Your task to perform on an android device: change the clock display to show seconds Image 0: 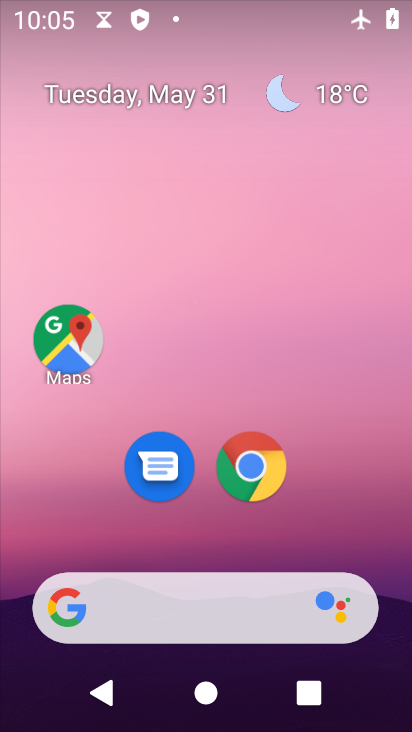
Step 0: drag from (360, 546) to (233, 10)
Your task to perform on an android device: change the clock display to show seconds Image 1: 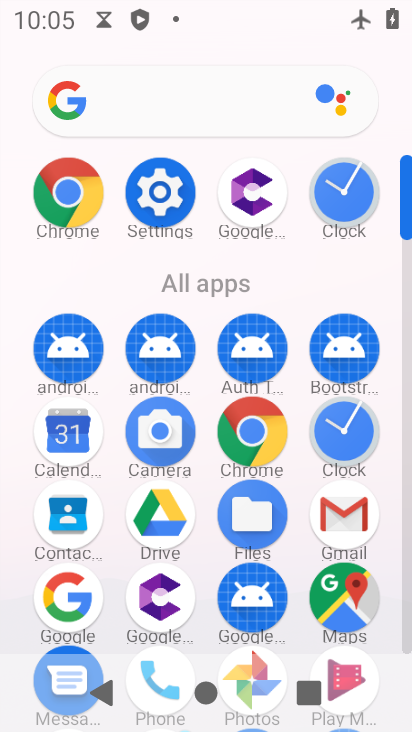
Step 1: drag from (23, 557) to (20, 216)
Your task to perform on an android device: change the clock display to show seconds Image 2: 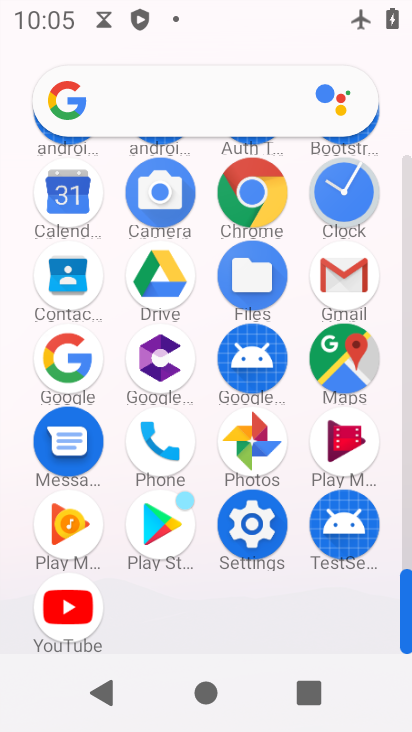
Step 2: click (342, 189)
Your task to perform on an android device: change the clock display to show seconds Image 3: 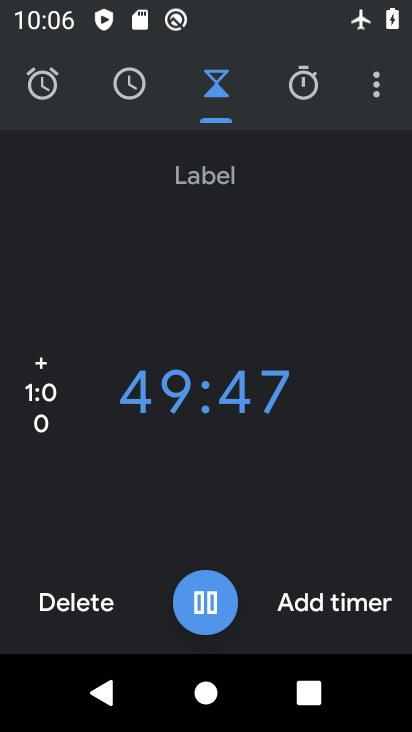
Step 3: drag from (366, 91) to (300, 158)
Your task to perform on an android device: change the clock display to show seconds Image 4: 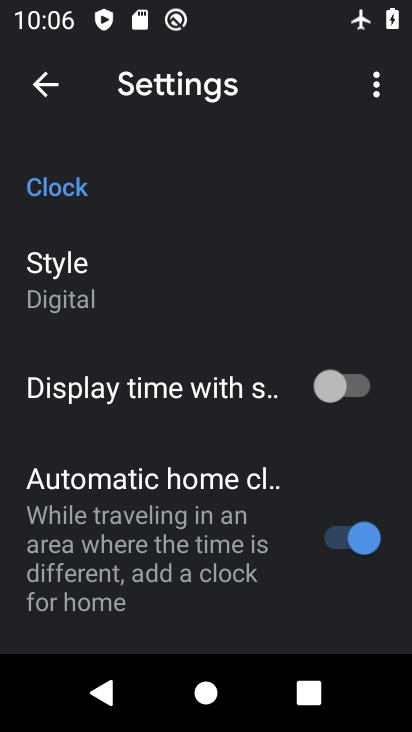
Step 4: drag from (189, 558) to (206, 157)
Your task to perform on an android device: change the clock display to show seconds Image 5: 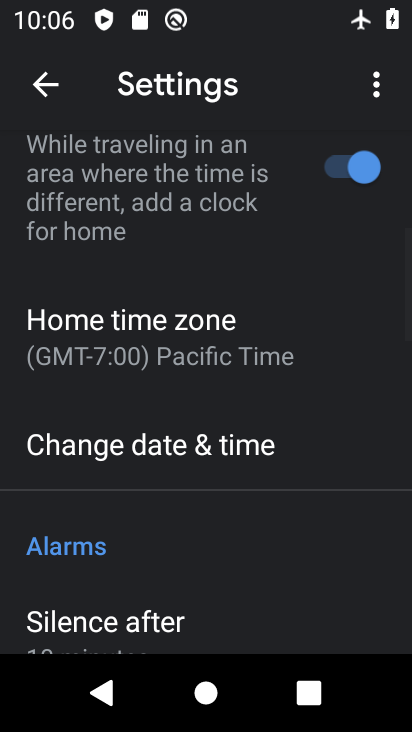
Step 5: drag from (211, 512) to (228, 254)
Your task to perform on an android device: change the clock display to show seconds Image 6: 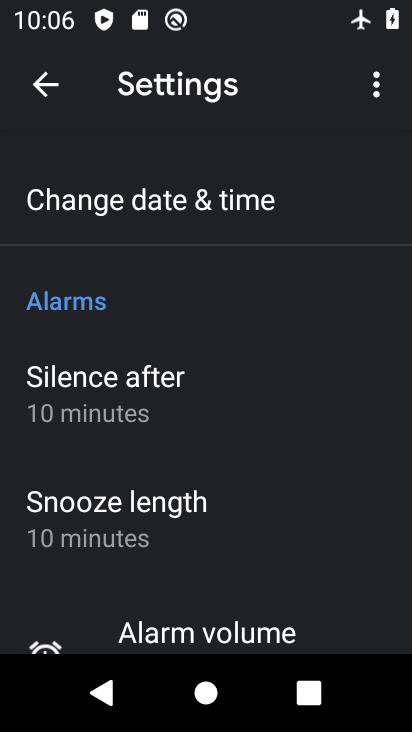
Step 6: click (226, 204)
Your task to perform on an android device: change the clock display to show seconds Image 7: 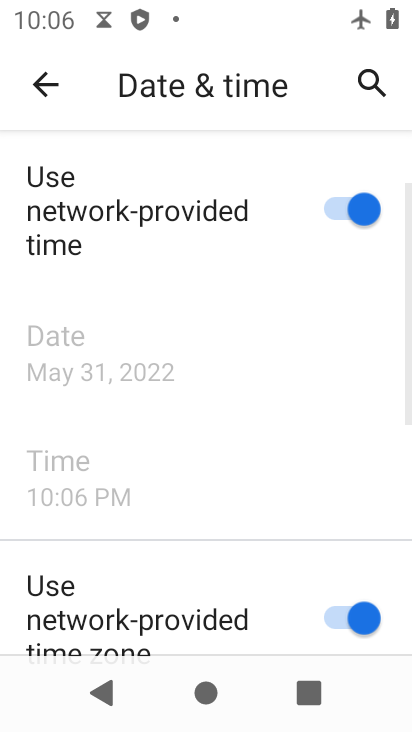
Step 7: drag from (250, 583) to (233, 134)
Your task to perform on an android device: change the clock display to show seconds Image 8: 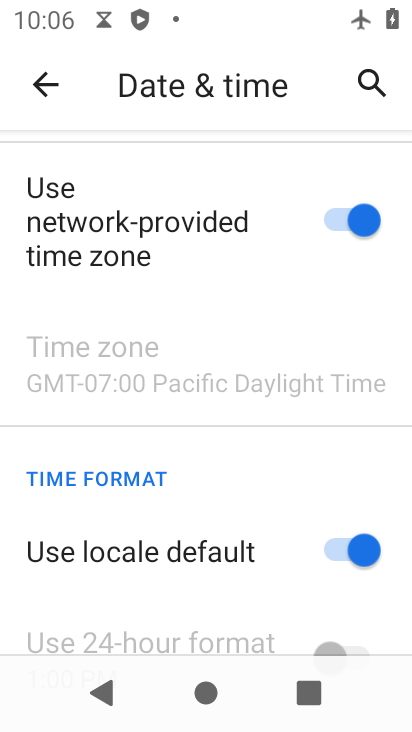
Step 8: drag from (206, 547) to (225, 151)
Your task to perform on an android device: change the clock display to show seconds Image 9: 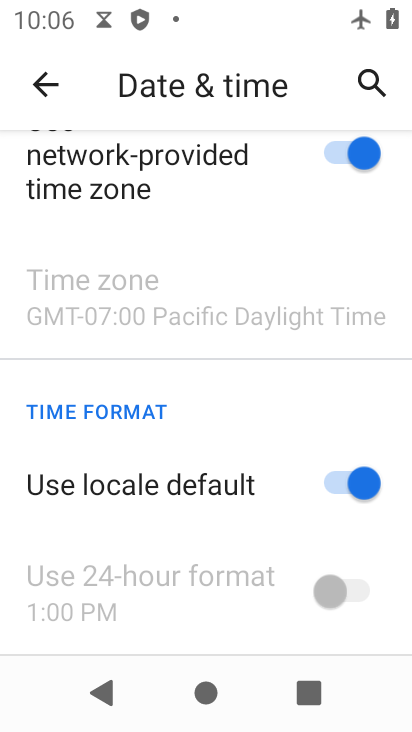
Step 9: drag from (192, 550) to (221, 258)
Your task to perform on an android device: change the clock display to show seconds Image 10: 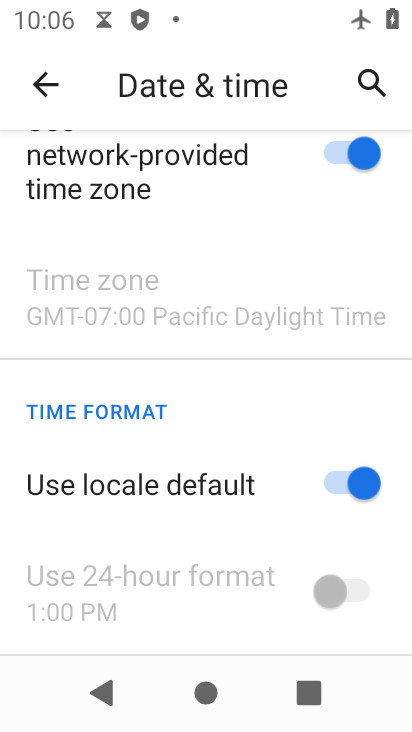
Step 10: drag from (233, 244) to (228, 622)
Your task to perform on an android device: change the clock display to show seconds Image 11: 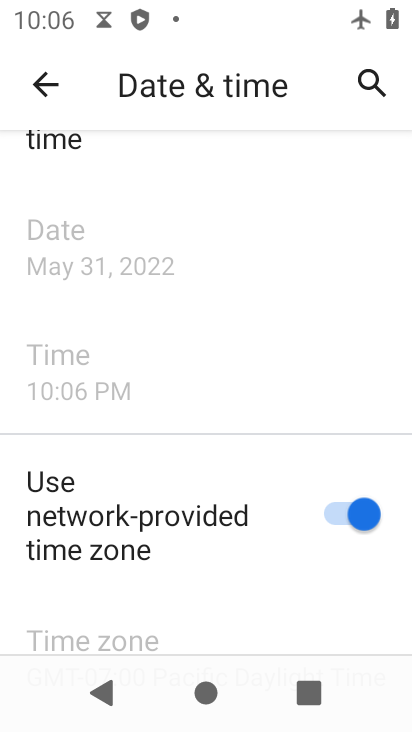
Step 11: drag from (254, 257) to (261, 524)
Your task to perform on an android device: change the clock display to show seconds Image 12: 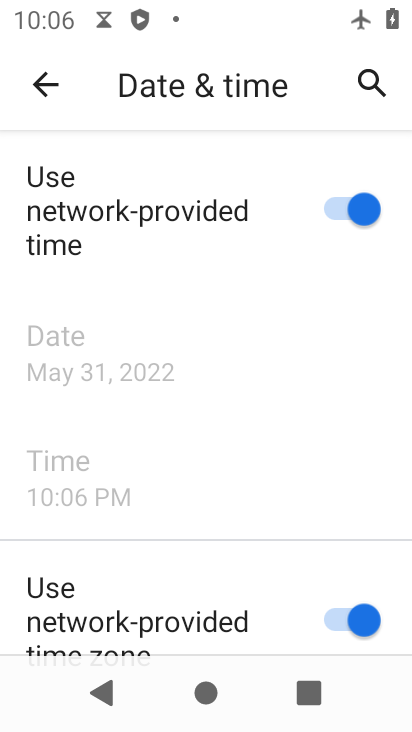
Step 12: drag from (232, 197) to (227, 602)
Your task to perform on an android device: change the clock display to show seconds Image 13: 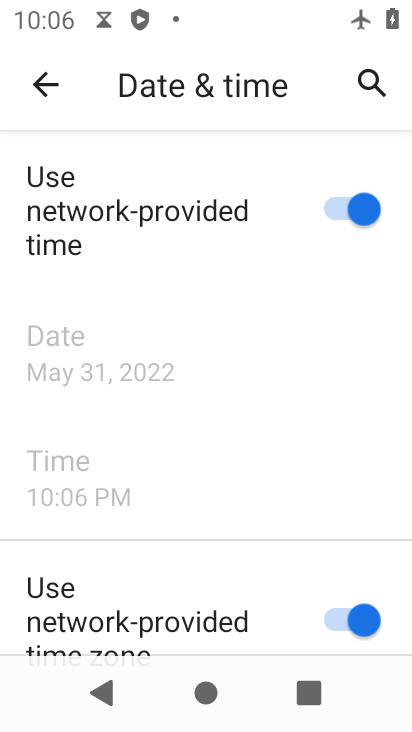
Step 13: click (54, 87)
Your task to perform on an android device: change the clock display to show seconds Image 14: 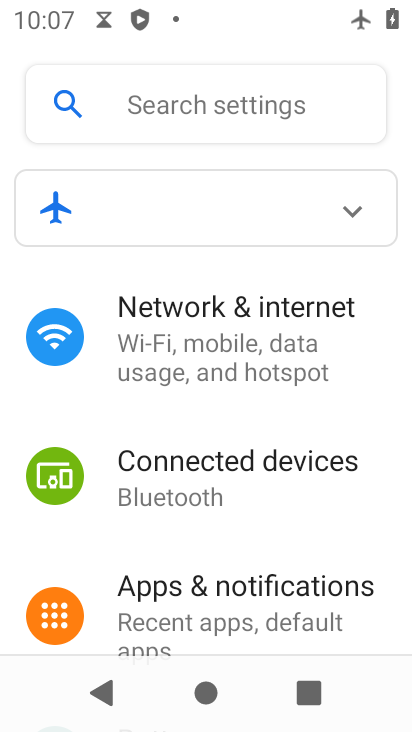
Step 14: press back button
Your task to perform on an android device: change the clock display to show seconds Image 15: 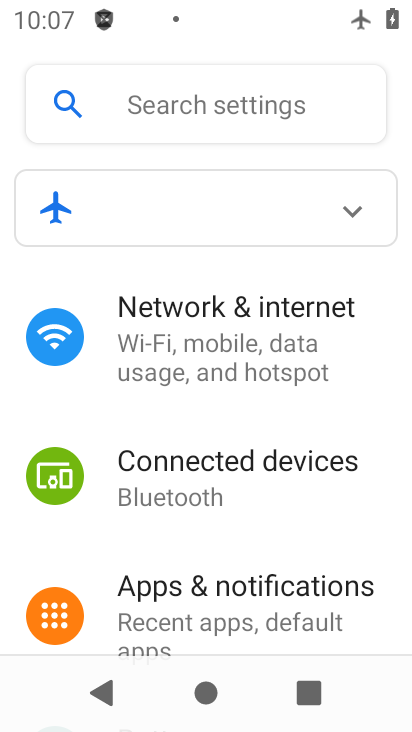
Step 15: press home button
Your task to perform on an android device: change the clock display to show seconds Image 16: 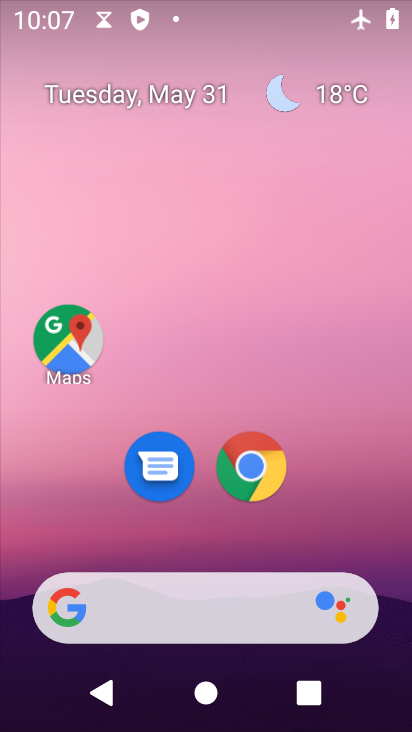
Step 16: drag from (325, 584) to (253, 72)
Your task to perform on an android device: change the clock display to show seconds Image 17: 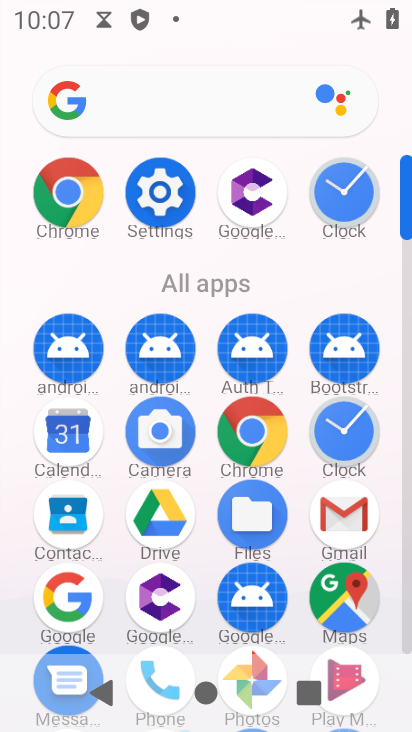
Step 17: click (344, 187)
Your task to perform on an android device: change the clock display to show seconds Image 18: 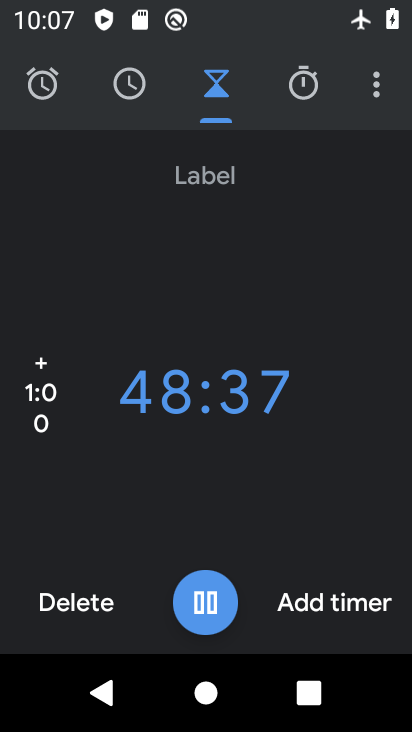
Step 18: drag from (373, 80) to (281, 170)
Your task to perform on an android device: change the clock display to show seconds Image 19: 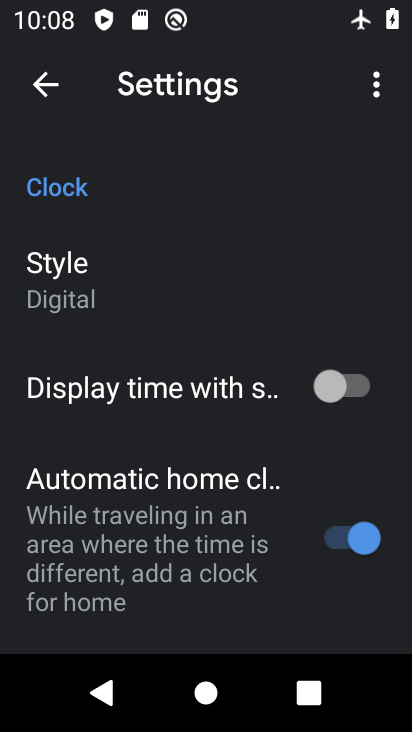
Step 19: click (350, 383)
Your task to perform on an android device: change the clock display to show seconds Image 20: 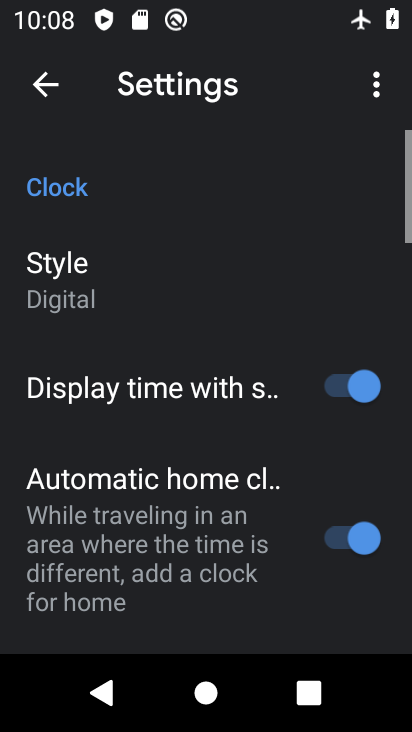
Step 20: task complete